Your task to perform on an android device: Find coffee shops on Maps Image 0: 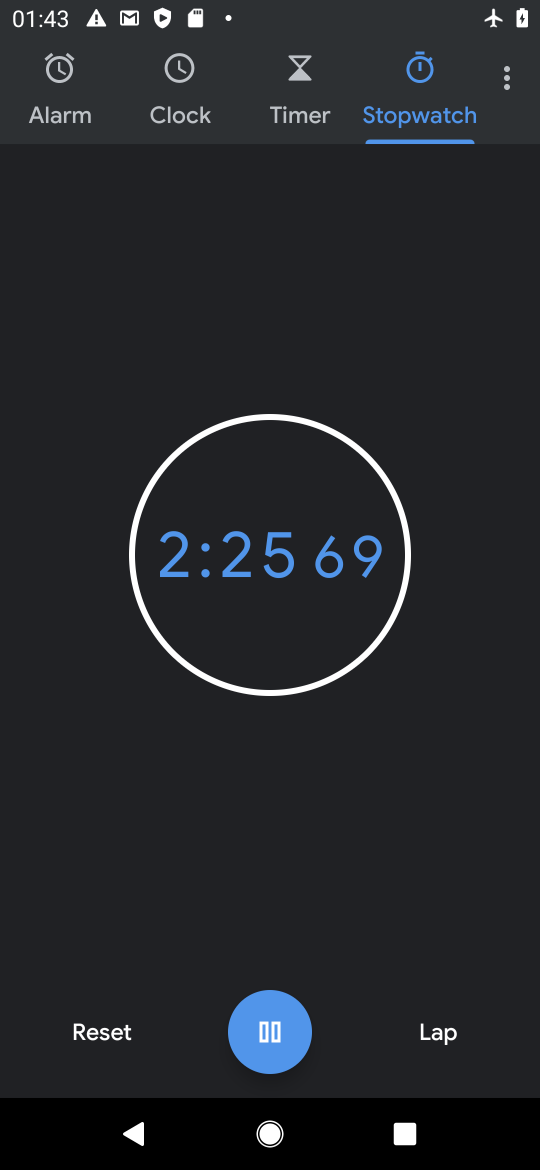
Step 0: press home button
Your task to perform on an android device: Find coffee shops on Maps Image 1: 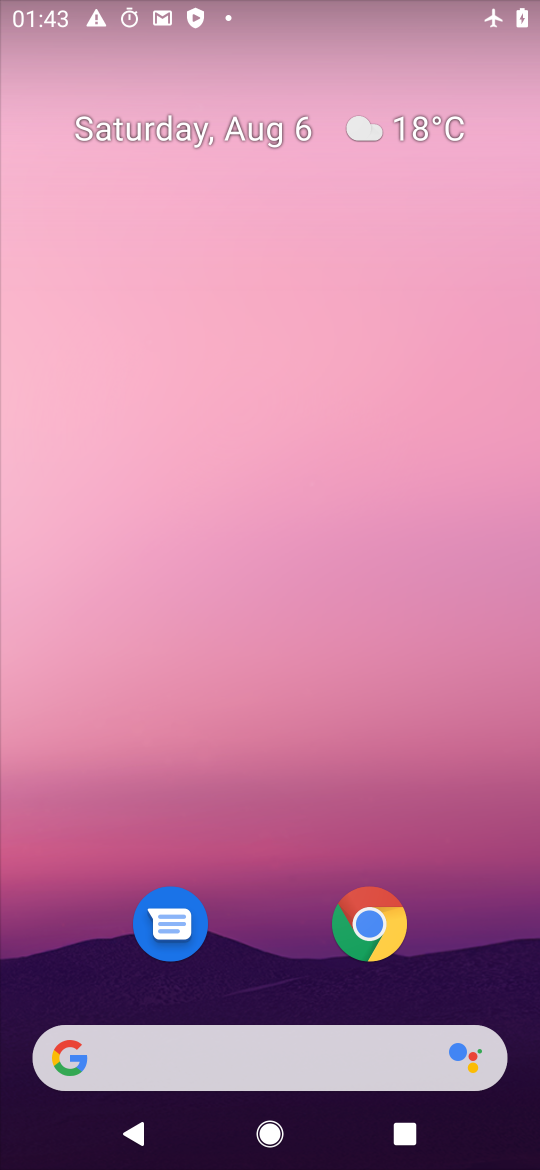
Step 1: drag from (342, 839) to (360, 104)
Your task to perform on an android device: Find coffee shops on Maps Image 2: 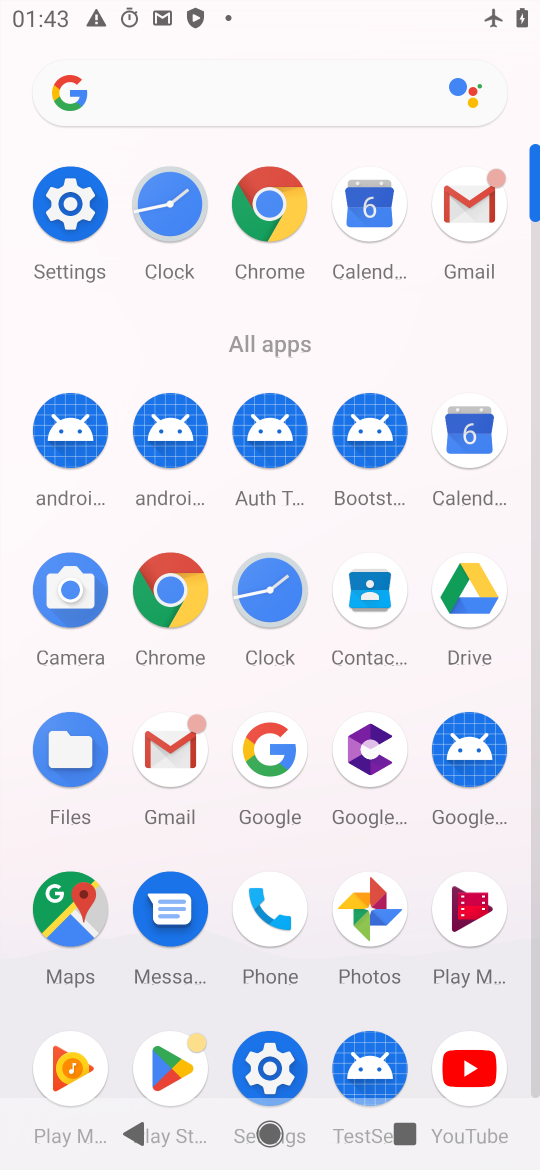
Step 2: click (53, 938)
Your task to perform on an android device: Find coffee shops on Maps Image 3: 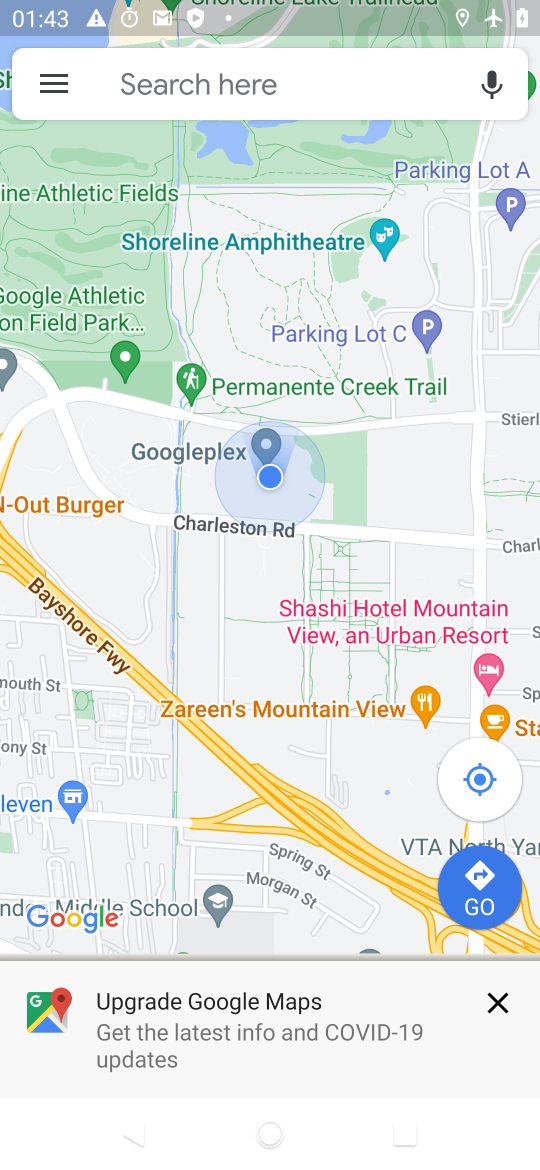
Step 3: click (292, 81)
Your task to perform on an android device: Find coffee shops on Maps Image 4: 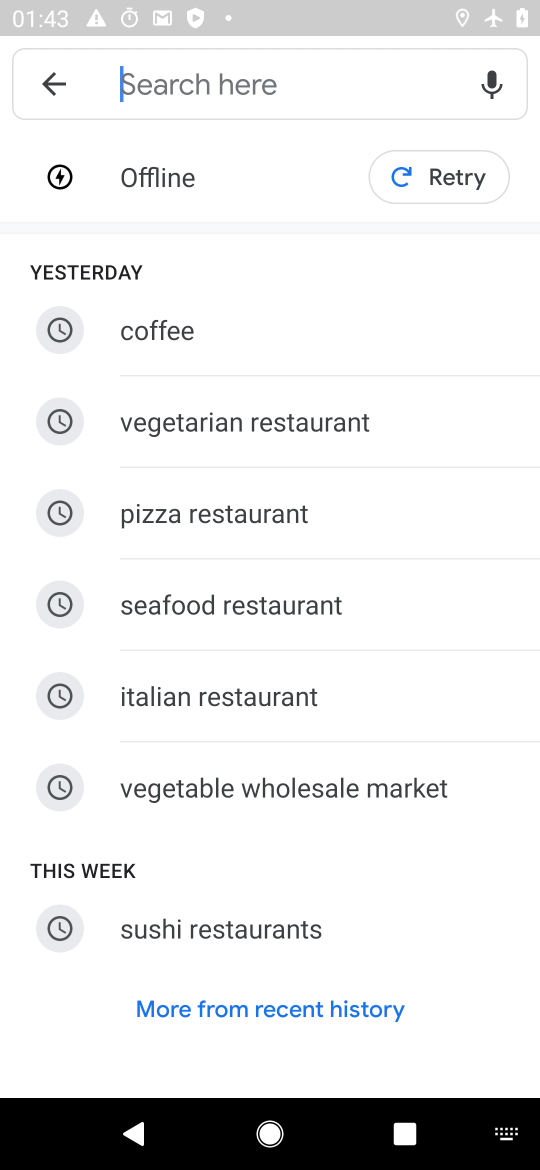
Step 4: type "coffee shops"
Your task to perform on an android device: Find coffee shops on Maps Image 5: 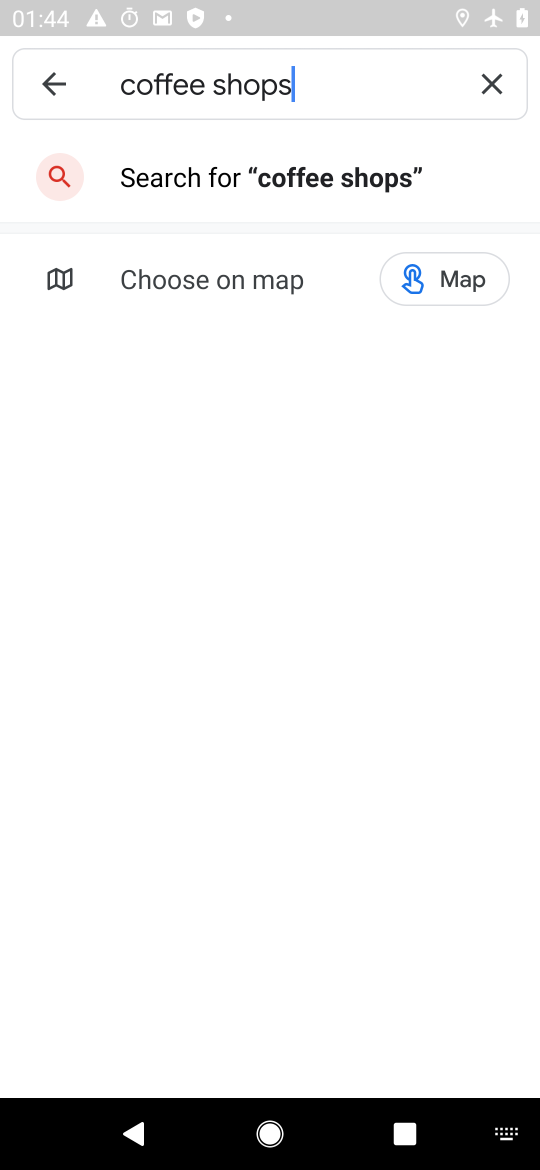
Step 5: task complete